Your task to perform on an android device: Add alienware aurora to the cart on bestbuy.com, then select checkout. Image 0: 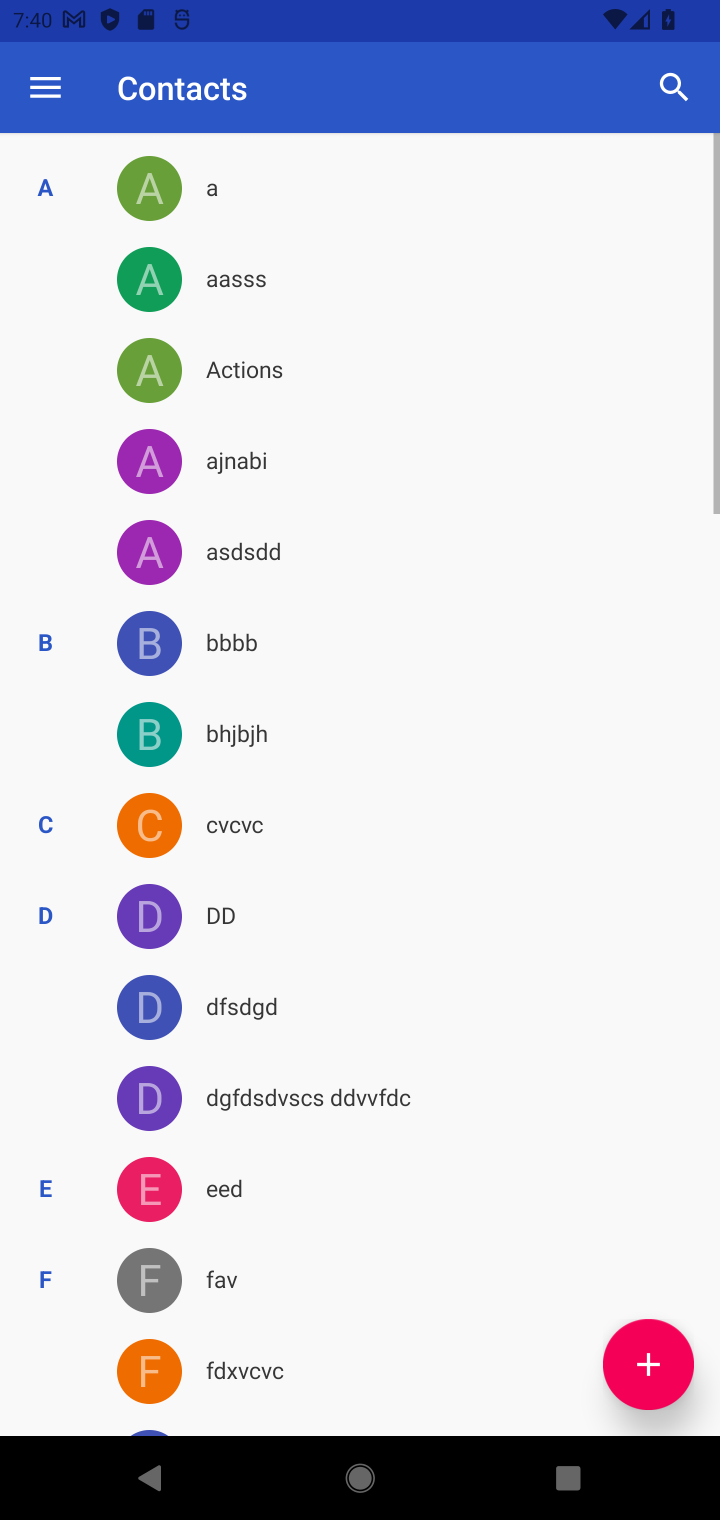
Step 0: press home button
Your task to perform on an android device: Add alienware aurora to the cart on bestbuy.com, then select checkout. Image 1: 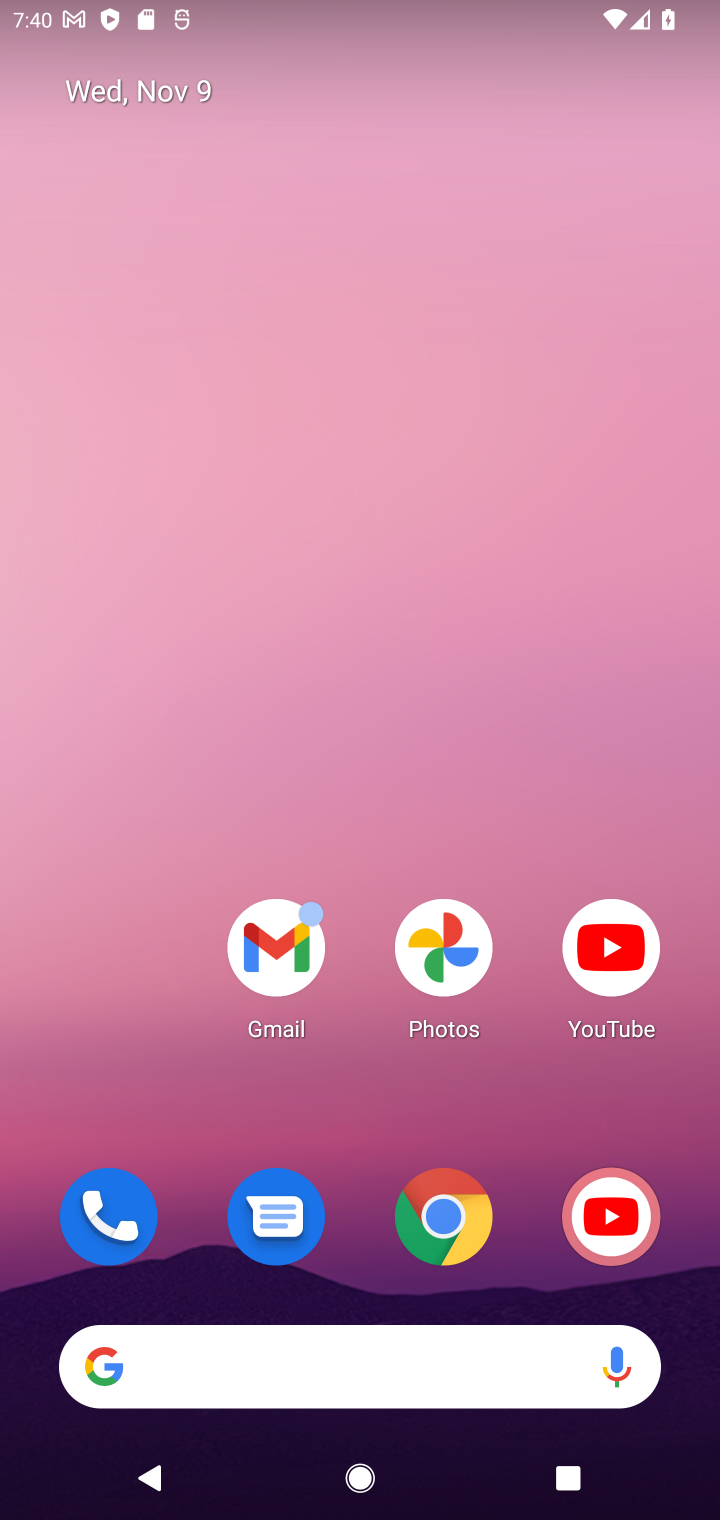
Step 1: click (388, 281)
Your task to perform on an android device: Add alienware aurora to the cart on bestbuy.com, then select checkout. Image 2: 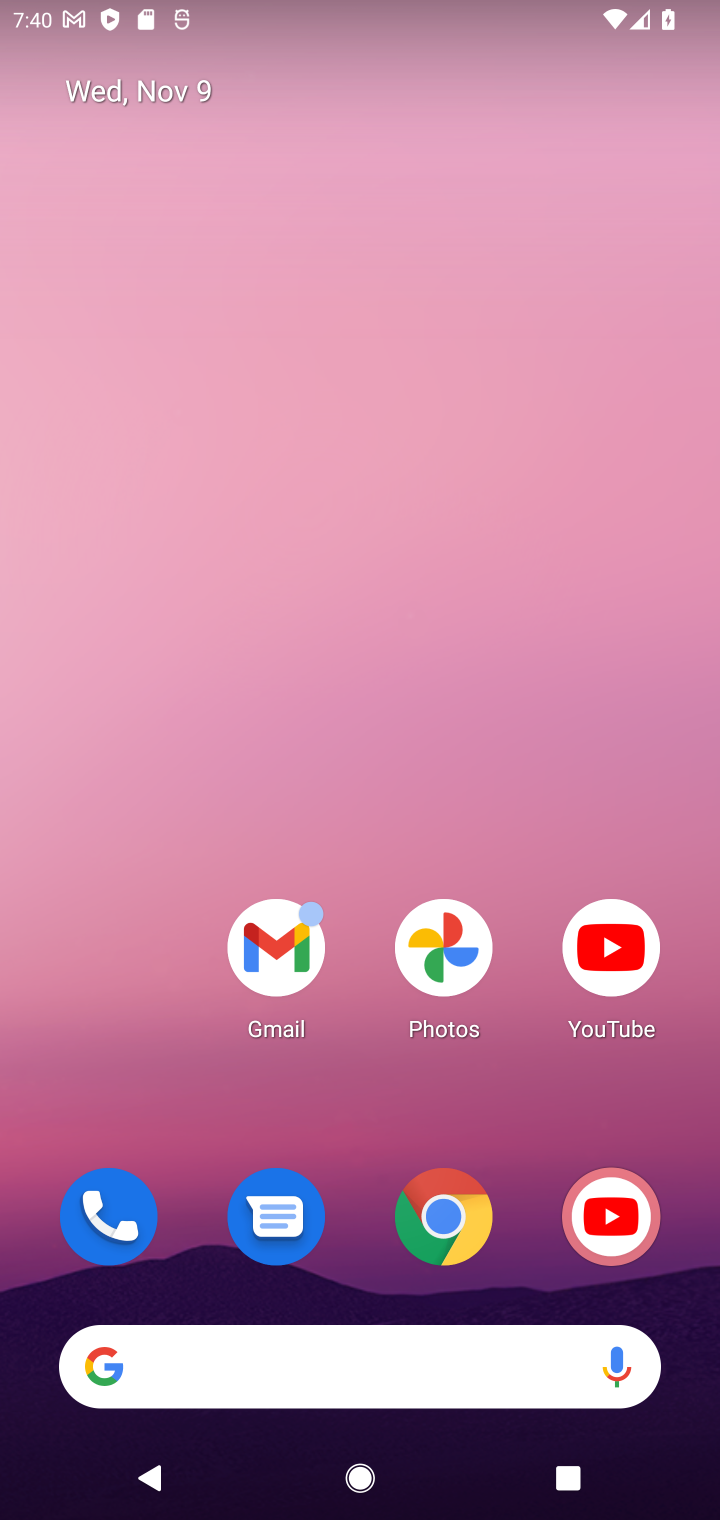
Step 2: drag from (338, 1127) to (398, 270)
Your task to perform on an android device: Add alienware aurora to the cart on bestbuy.com, then select checkout. Image 3: 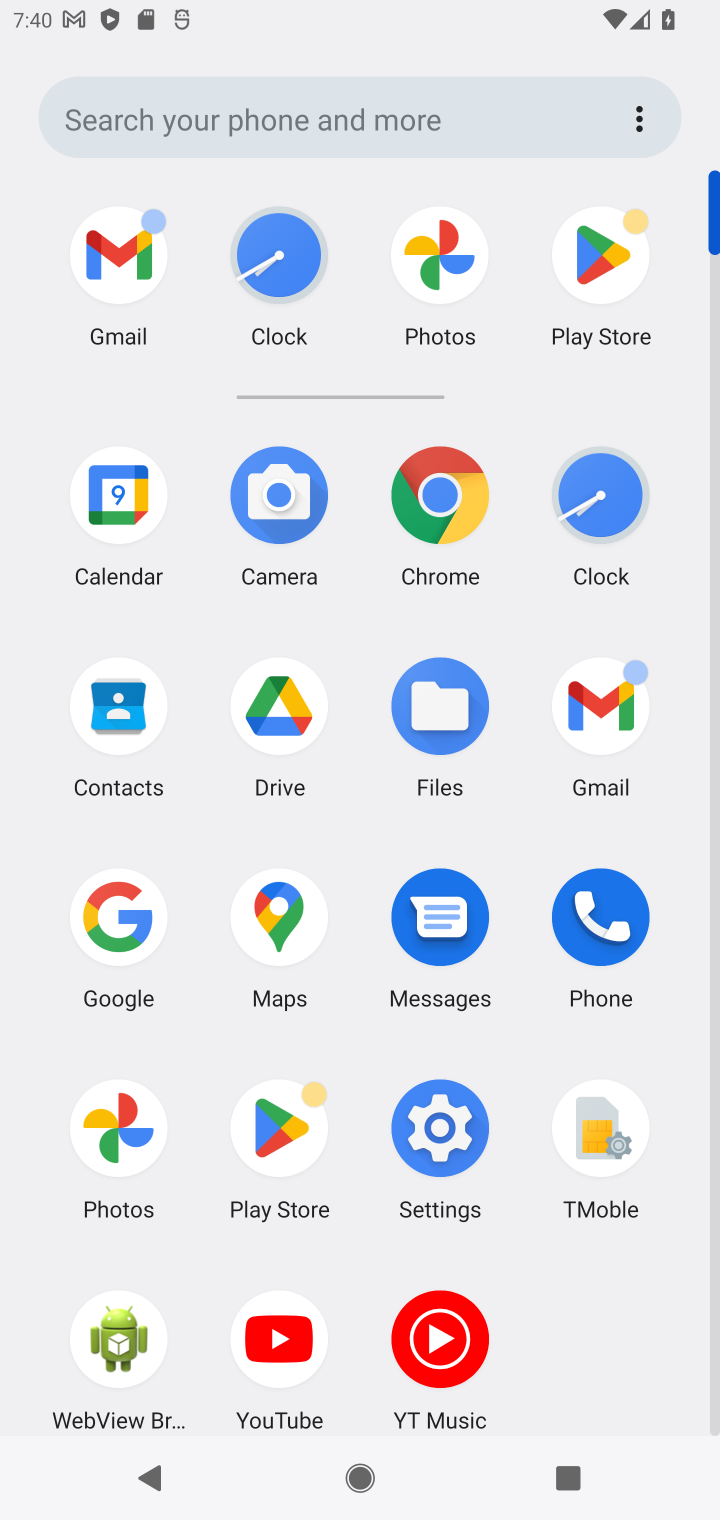
Step 3: click (452, 538)
Your task to perform on an android device: Add alienware aurora to the cart on bestbuy.com, then select checkout. Image 4: 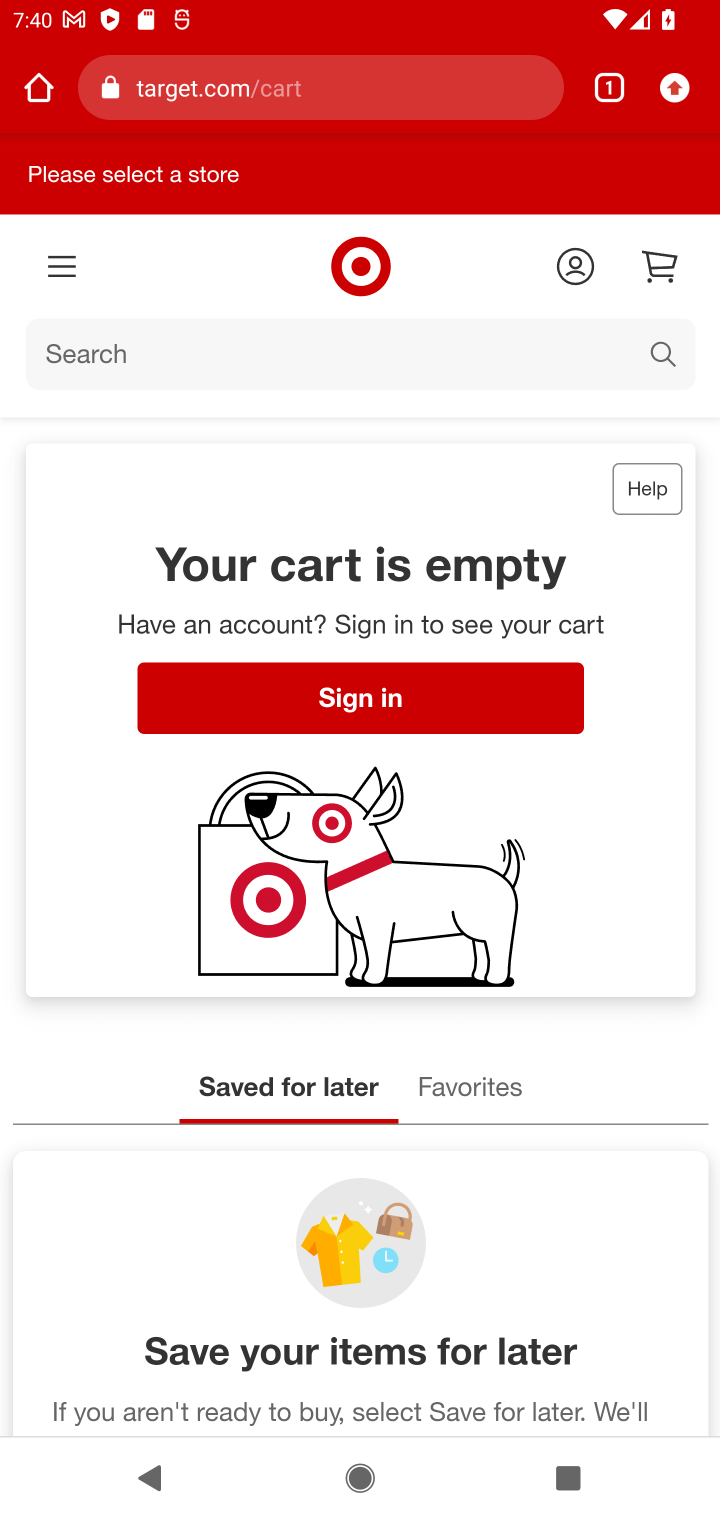
Step 4: click (412, 89)
Your task to perform on an android device: Add alienware aurora to the cart on bestbuy.com, then select checkout. Image 5: 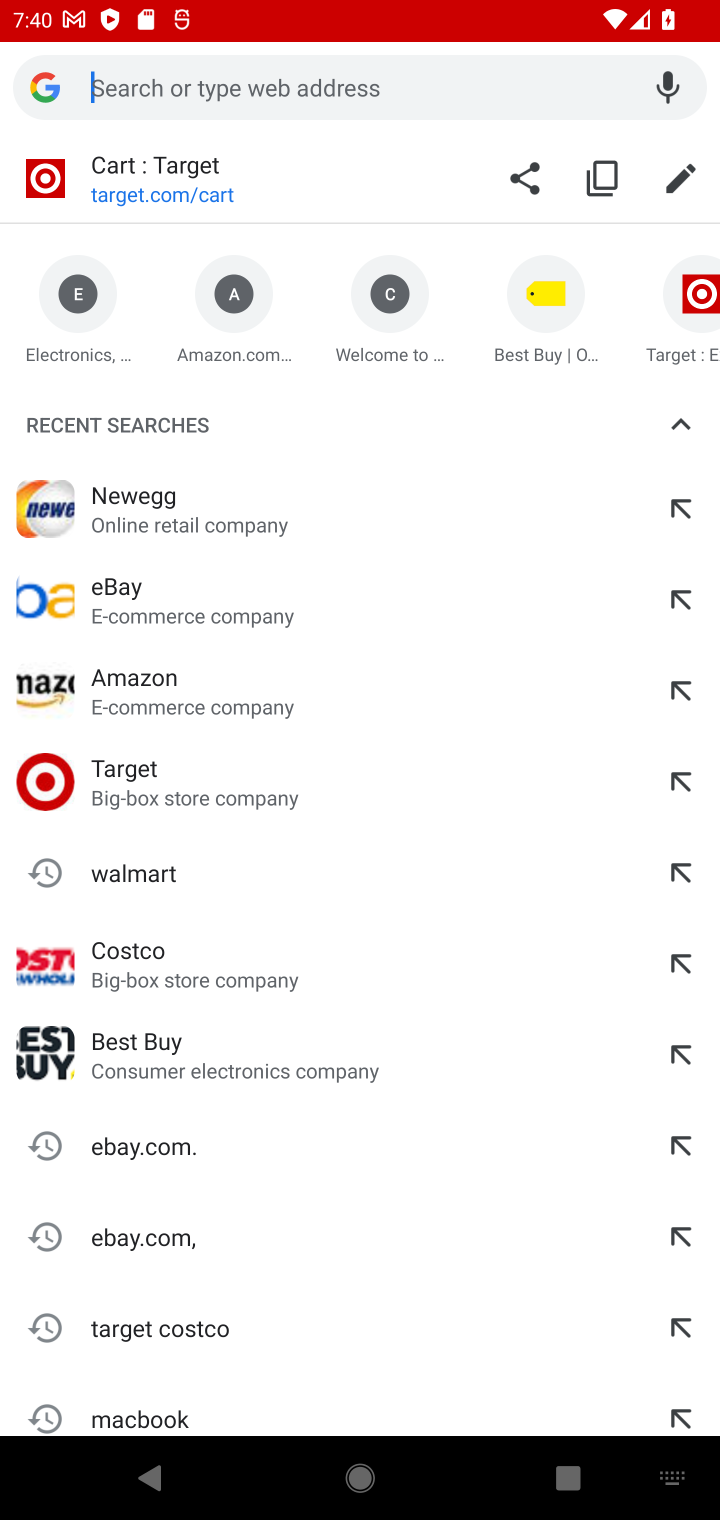
Step 5: type "bestbuy.com"
Your task to perform on an android device: Add alienware aurora to the cart on bestbuy.com, then select checkout. Image 6: 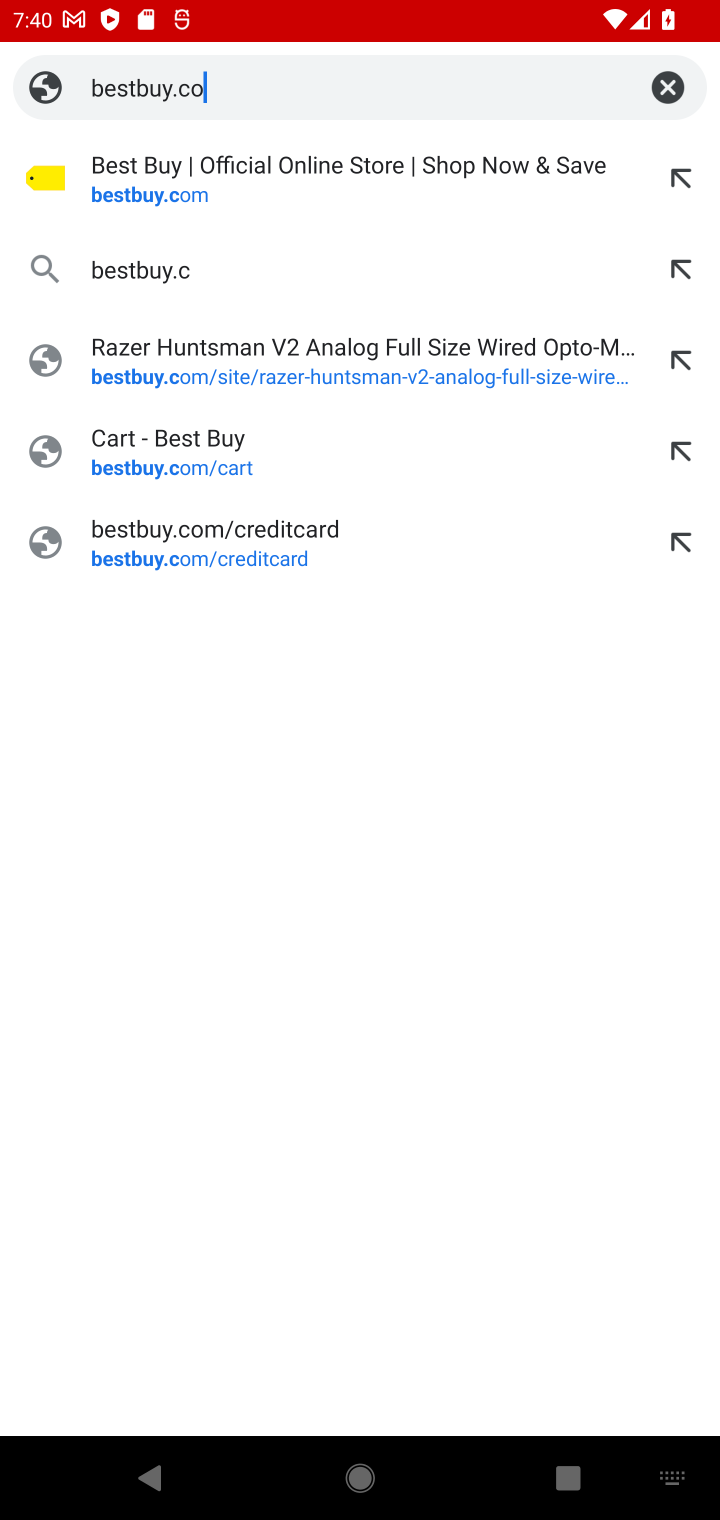
Step 6: press enter
Your task to perform on an android device: Add alienware aurora to the cart on bestbuy.com, then select checkout. Image 7: 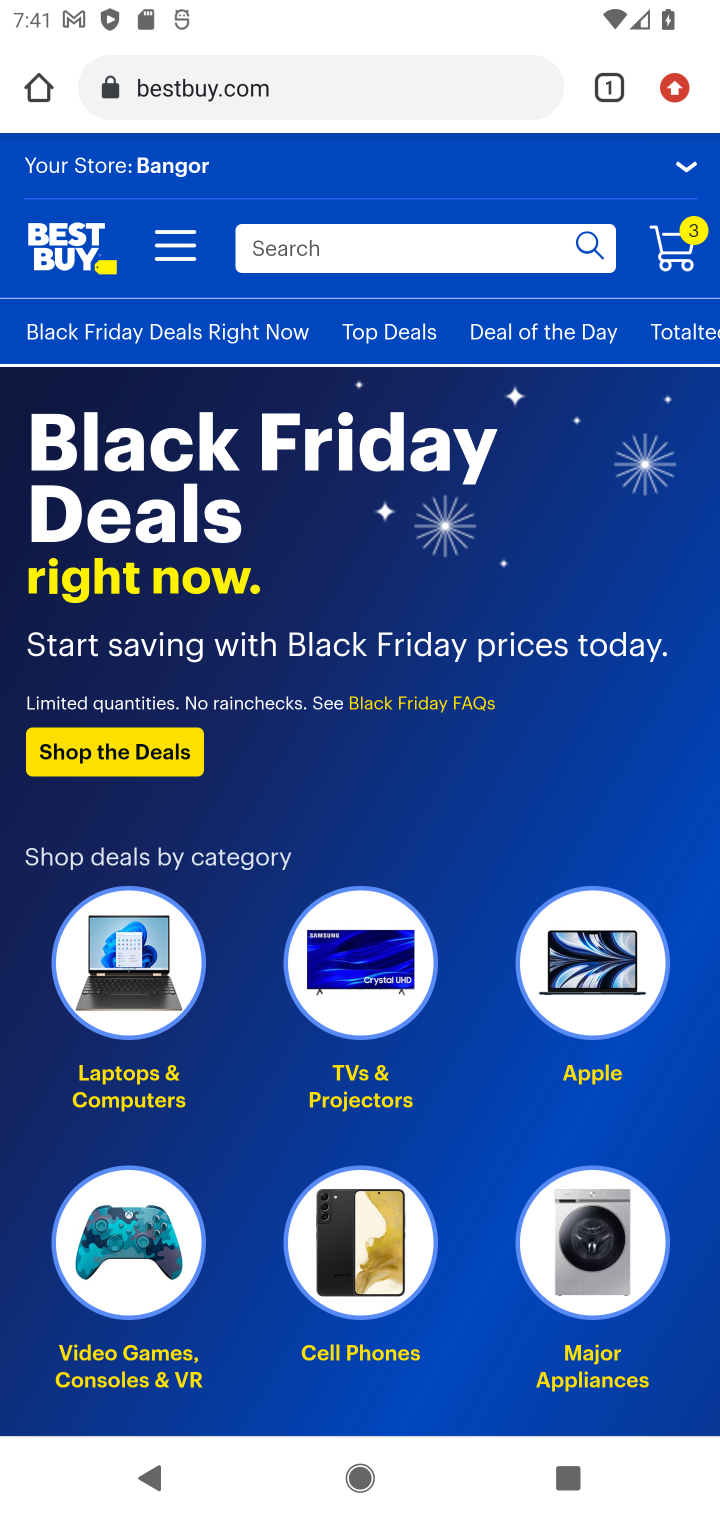
Step 7: click (423, 225)
Your task to perform on an android device: Add alienware aurora to the cart on bestbuy.com, then select checkout. Image 8: 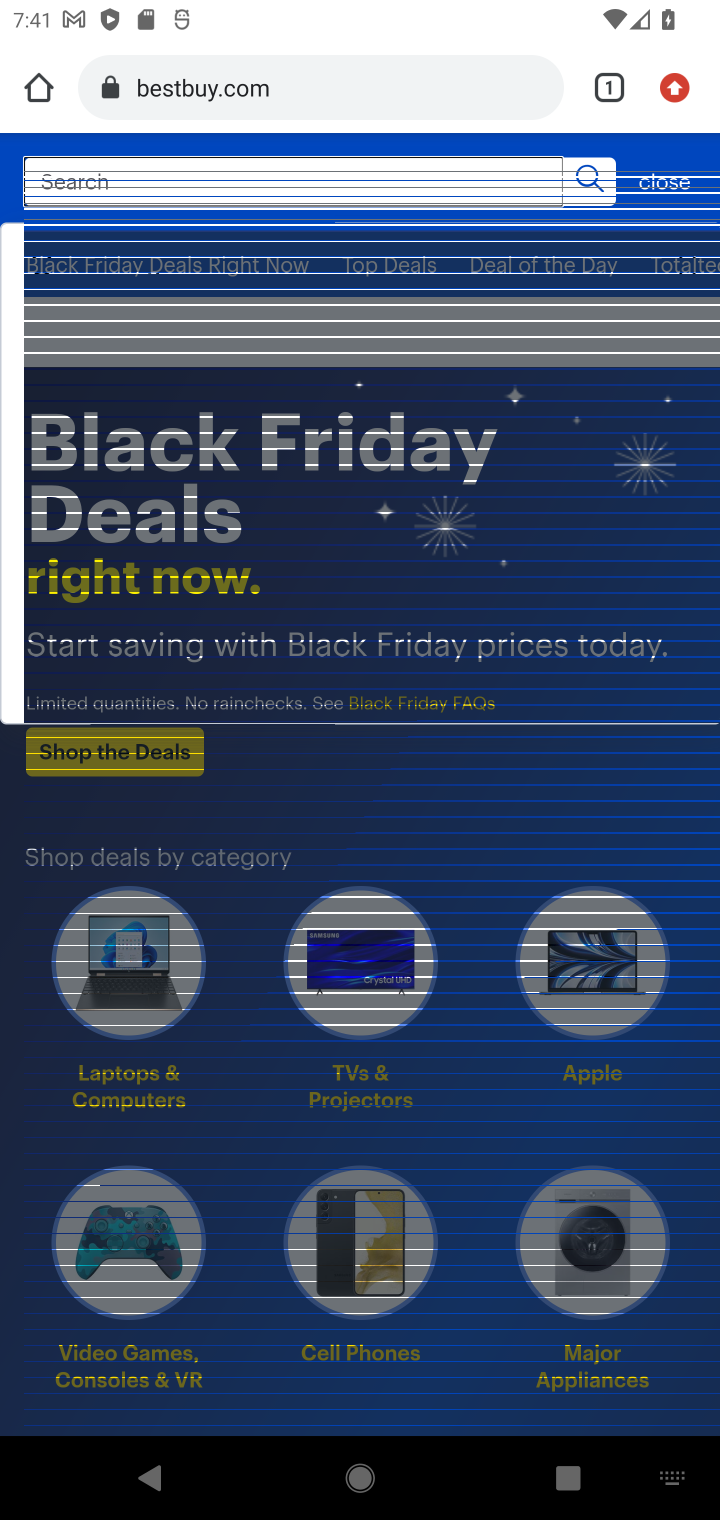
Step 8: type "alienware aurora"
Your task to perform on an android device: Add alienware aurora to the cart on bestbuy.com, then select checkout. Image 9: 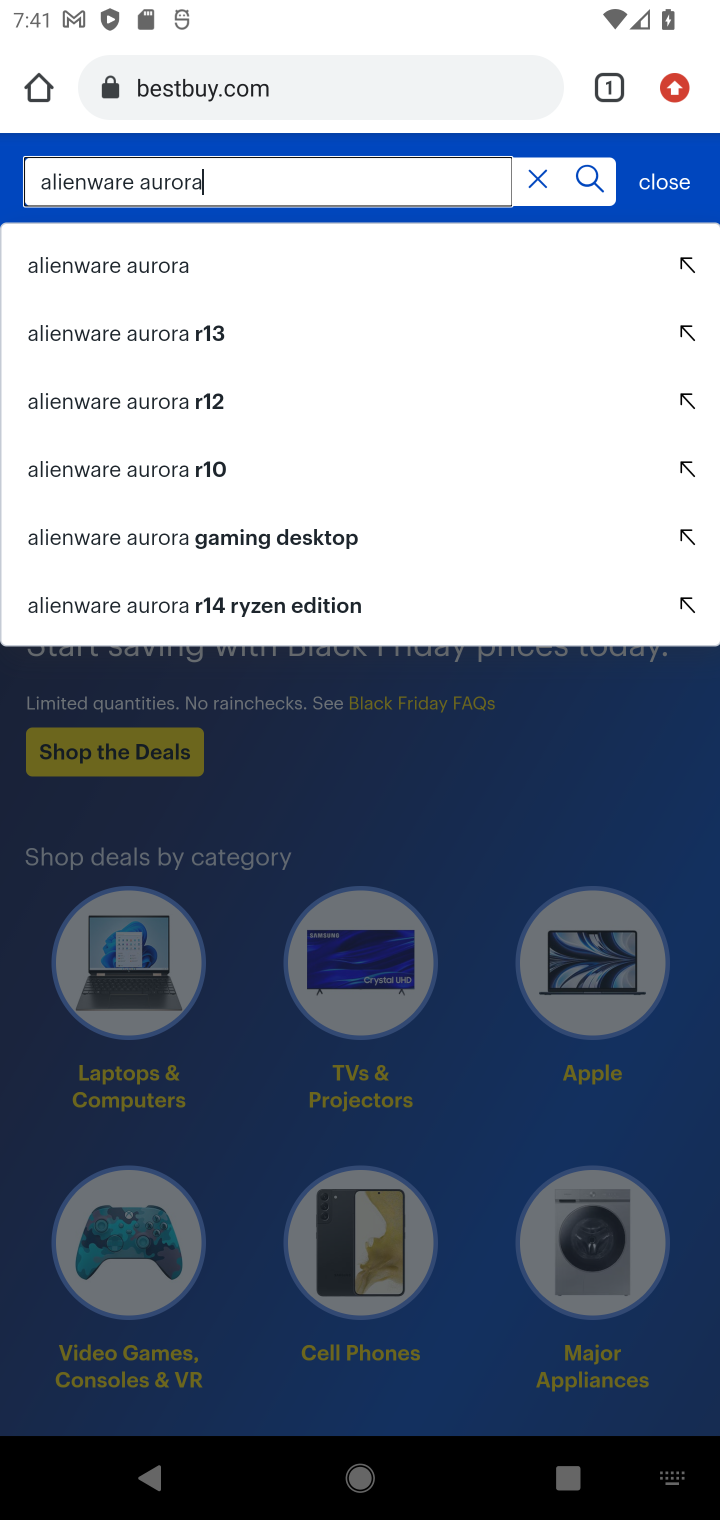
Step 9: press enter
Your task to perform on an android device: Add alienware aurora to the cart on bestbuy.com, then select checkout. Image 10: 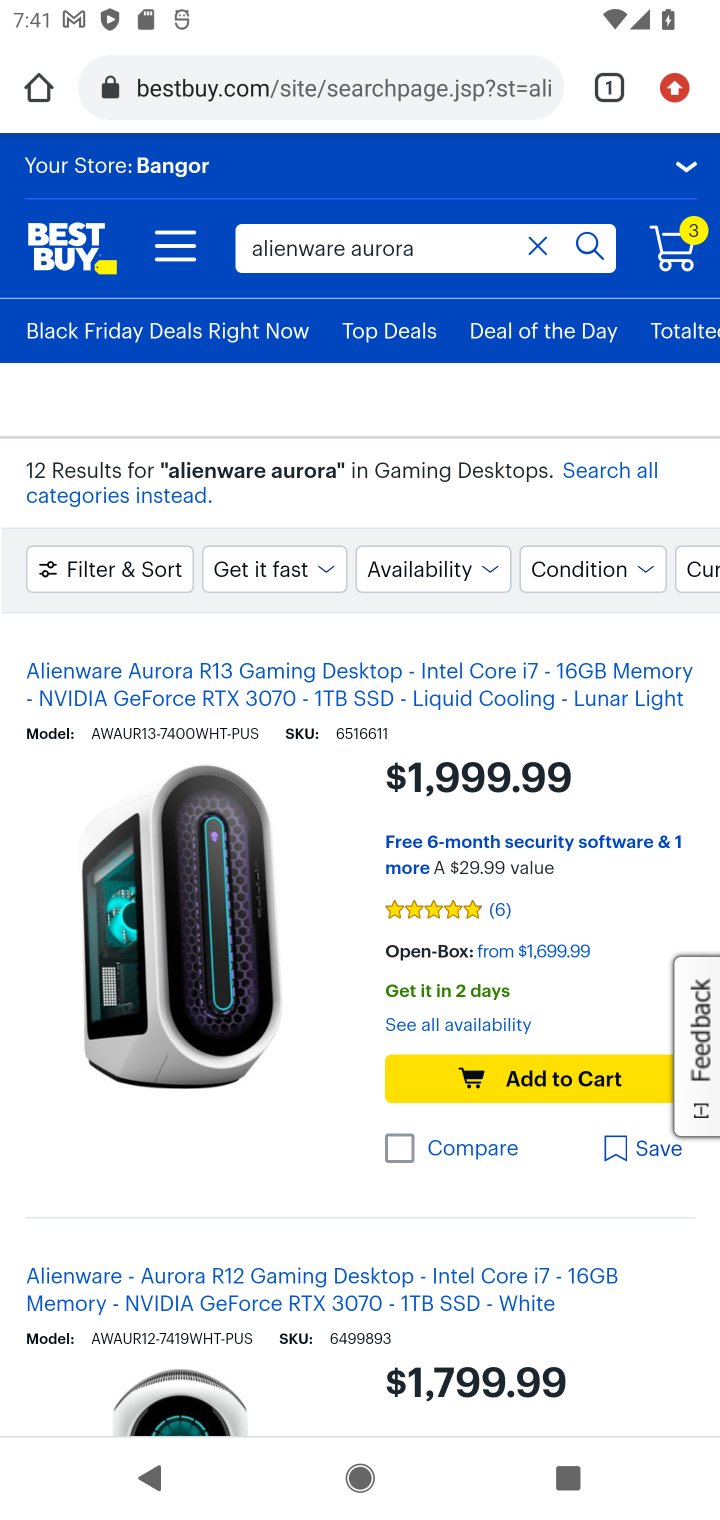
Step 10: click (370, 676)
Your task to perform on an android device: Add alienware aurora to the cart on bestbuy.com, then select checkout. Image 11: 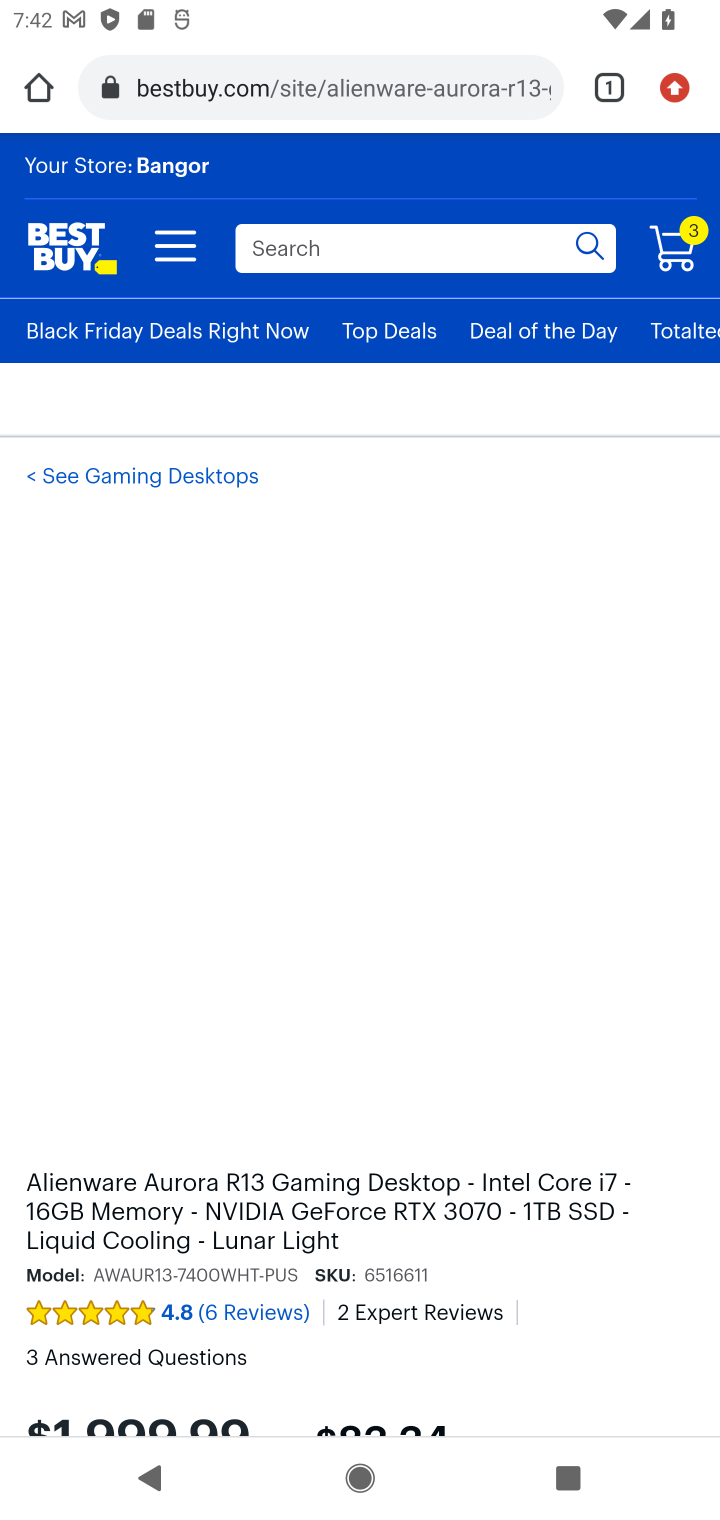
Step 11: drag from (354, 1295) to (407, 215)
Your task to perform on an android device: Add alienware aurora to the cart on bestbuy.com, then select checkout. Image 12: 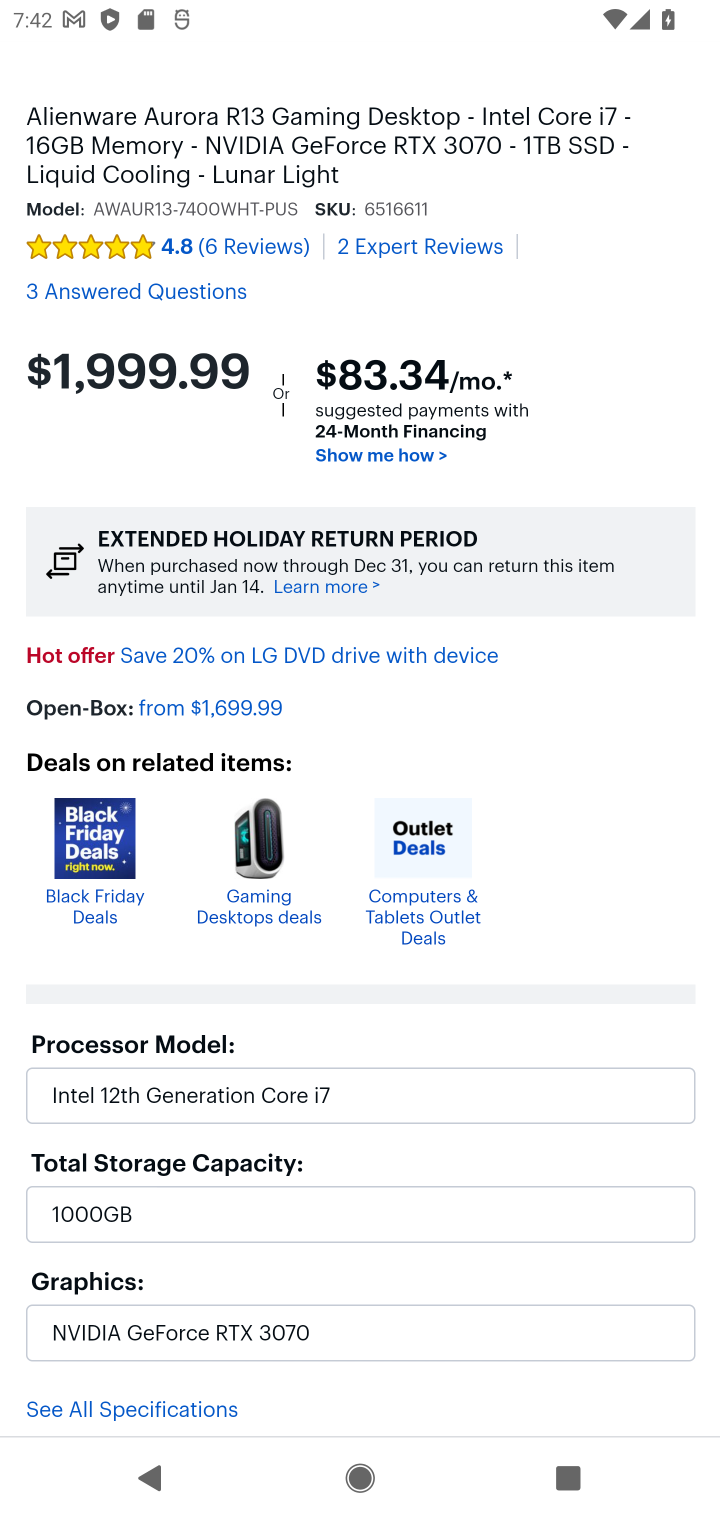
Step 12: drag from (371, 1330) to (431, 502)
Your task to perform on an android device: Add alienware aurora to the cart on bestbuy.com, then select checkout. Image 13: 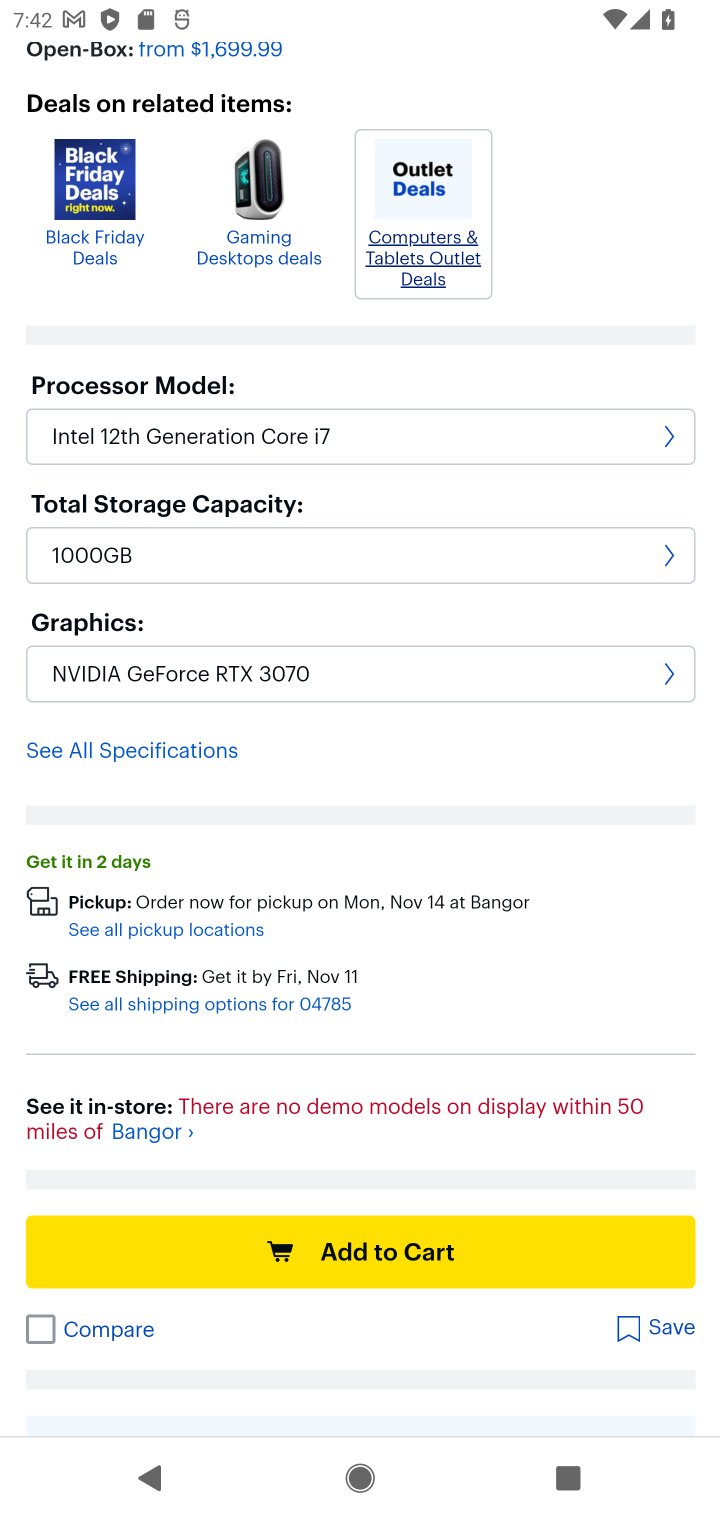
Step 13: click (454, 1249)
Your task to perform on an android device: Add alienware aurora to the cart on bestbuy.com, then select checkout. Image 14: 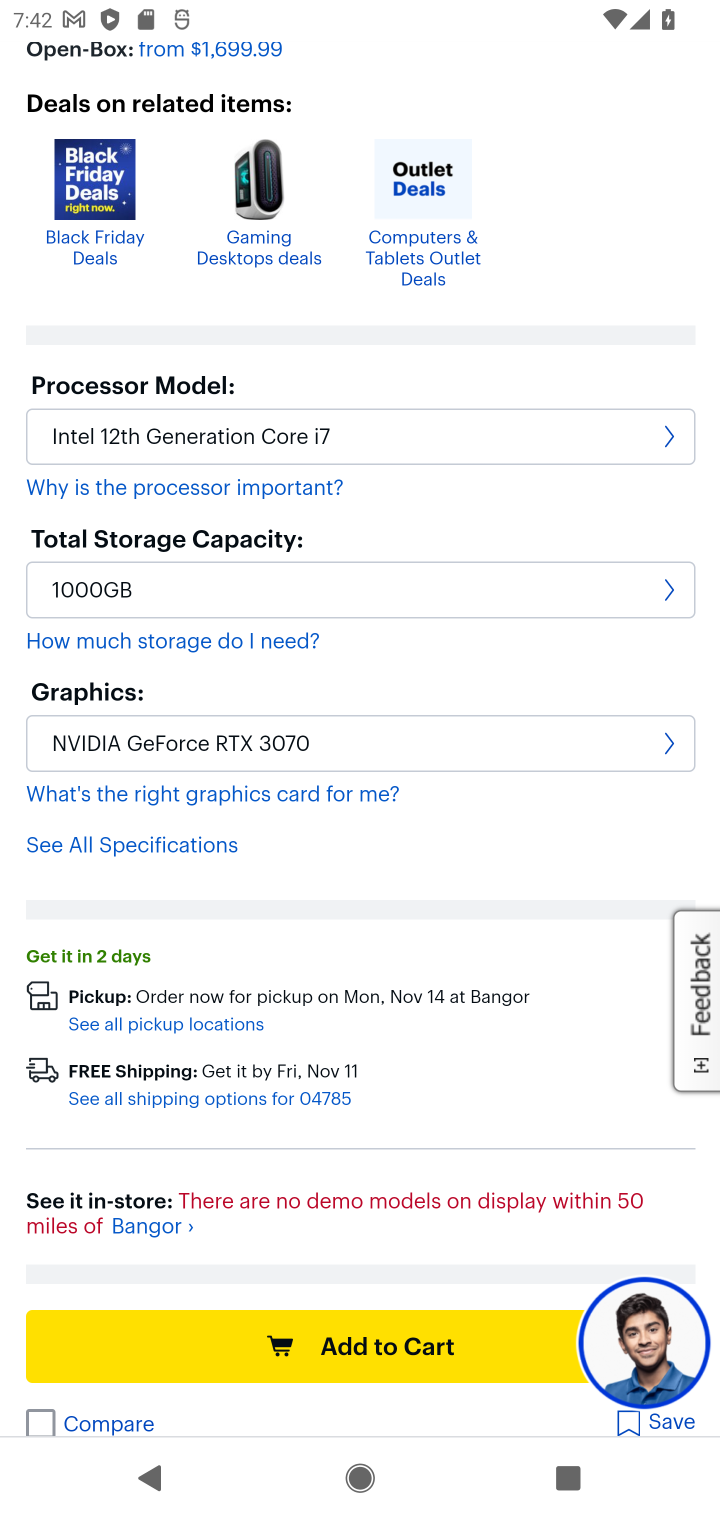
Step 14: click (338, 1346)
Your task to perform on an android device: Add alienware aurora to the cart on bestbuy.com, then select checkout. Image 15: 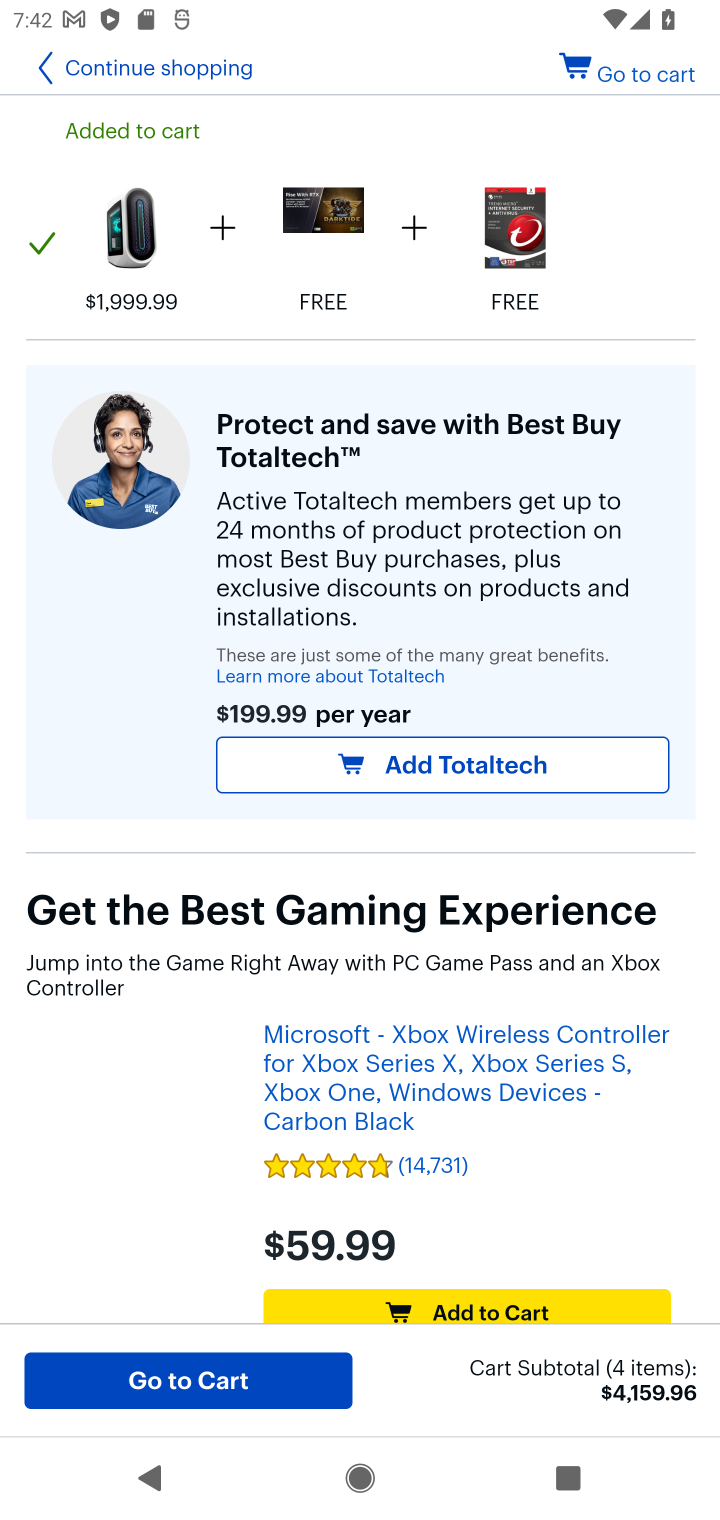
Step 15: click (204, 1389)
Your task to perform on an android device: Add alienware aurora to the cart on bestbuy.com, then select checkout. Image 16: 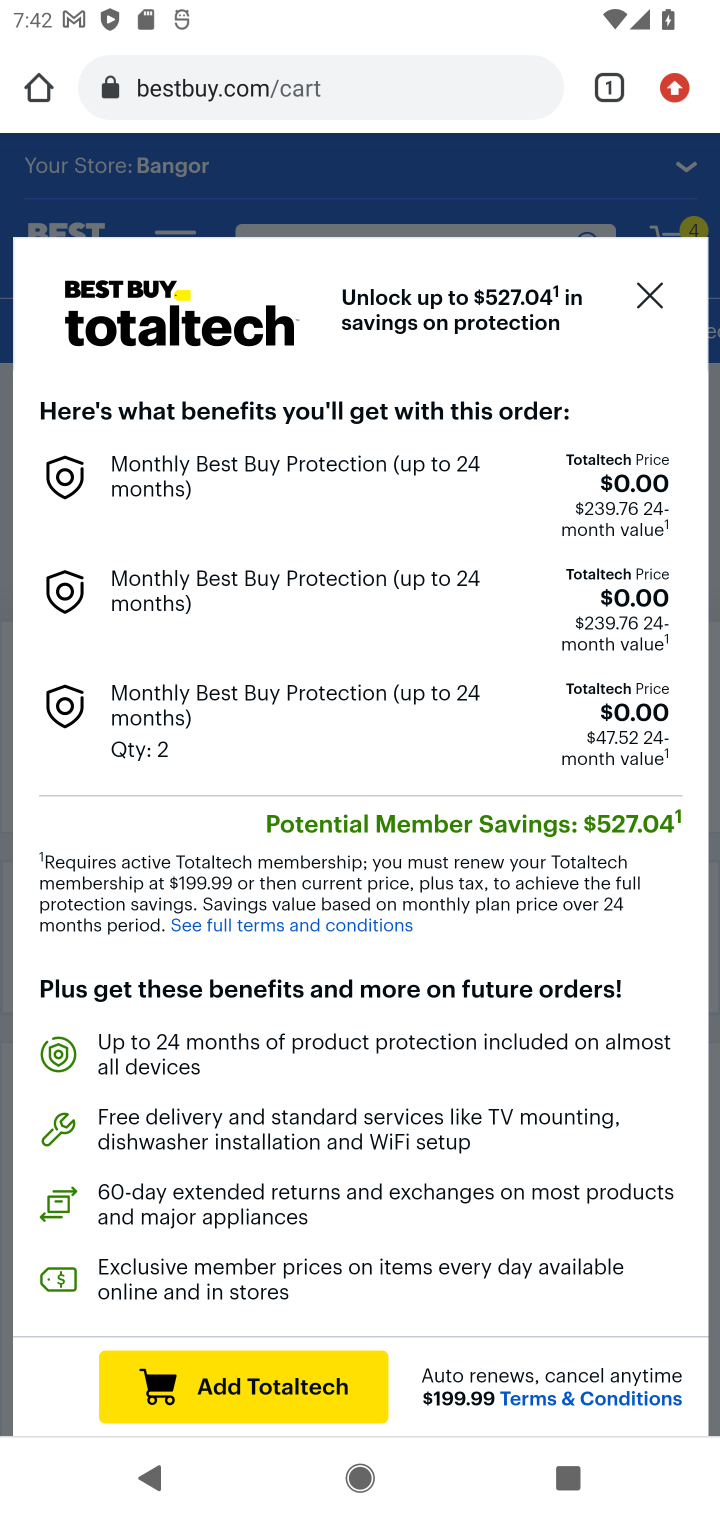
Step 16: click (652, 297)
Your task to perform on an android device: Add alienware aurora to the cart on bestbuy.com, then select checkout. Image 17: 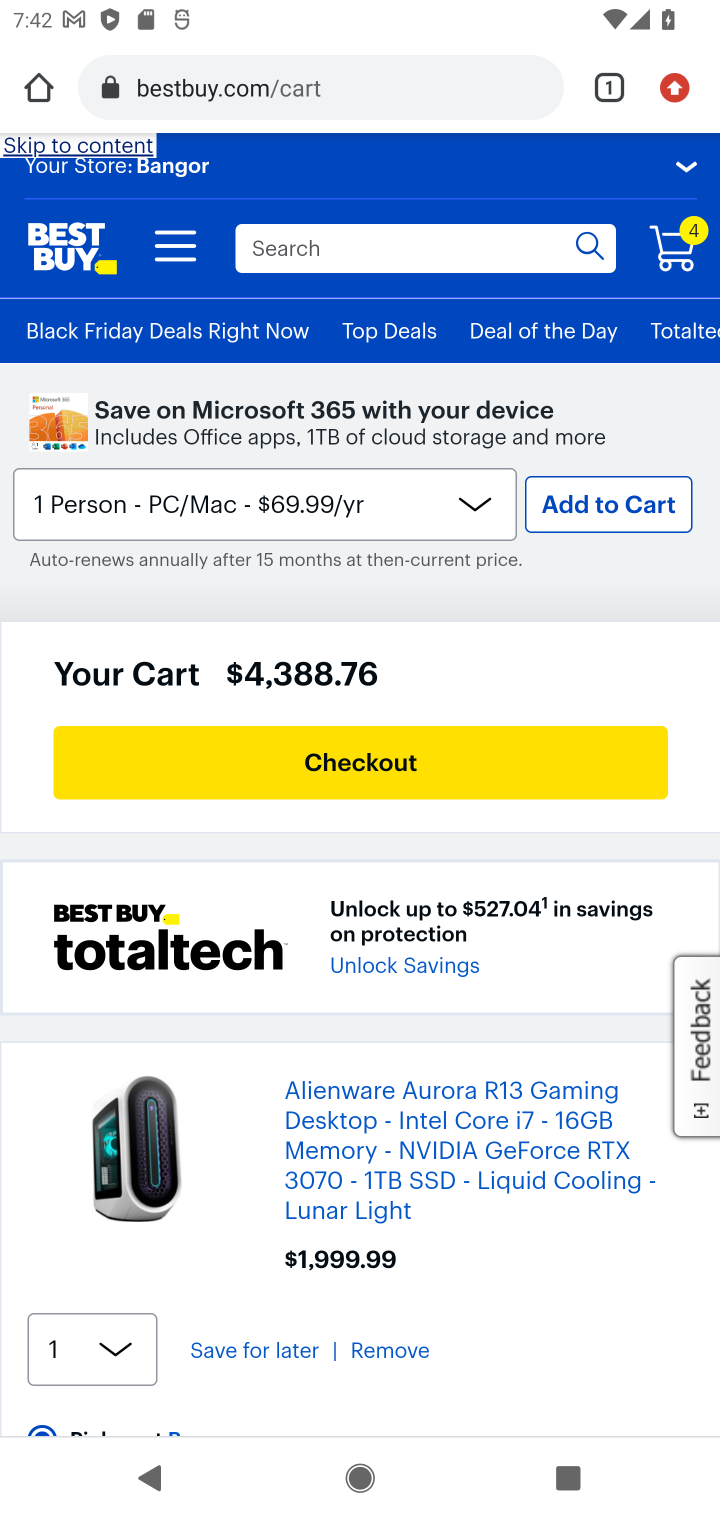
Step 17: click (457, 745)
Your task to perform on an android device: Add alienware aurora to the cart on bestbuy.com, then select checkout. Image 18: 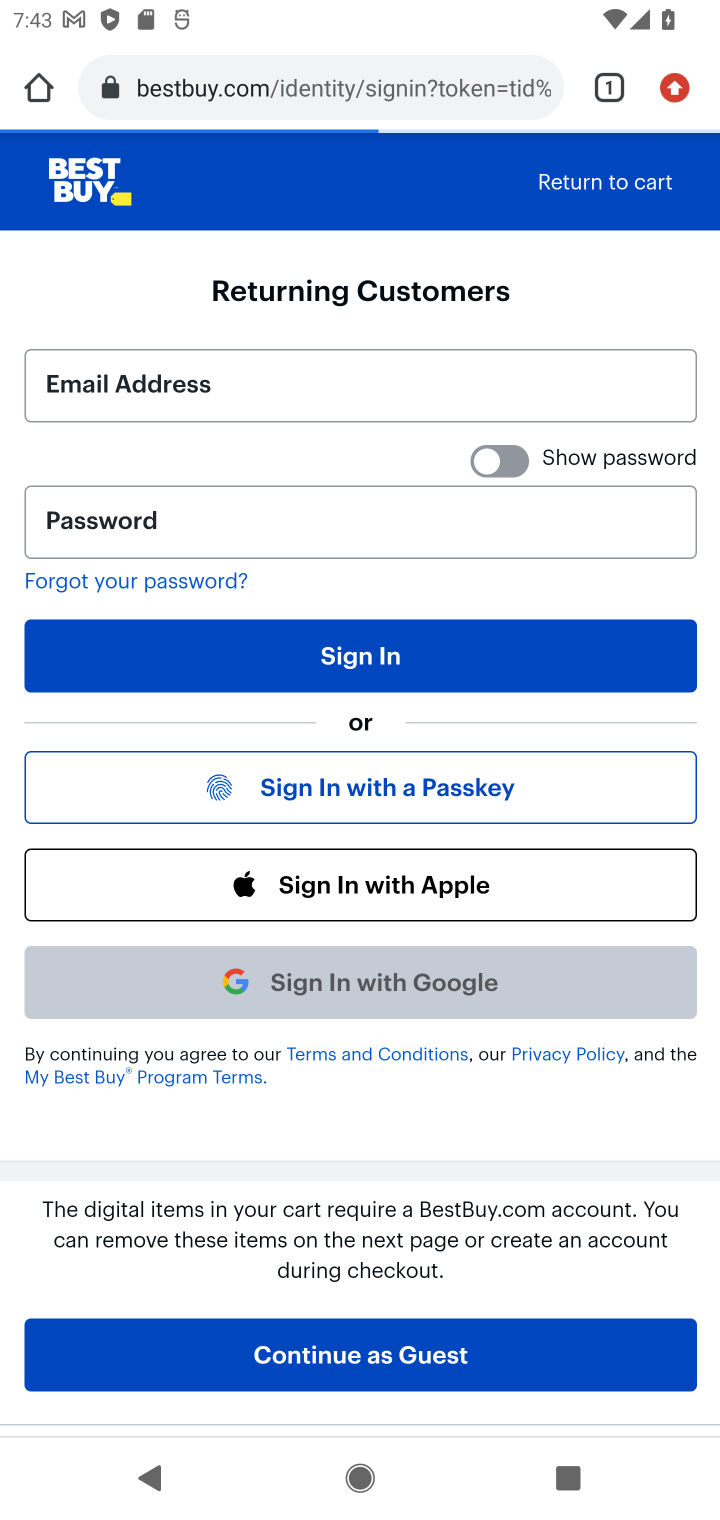
Step 18: task complete